Your task to perform on an android device: turn on location history Image 0: 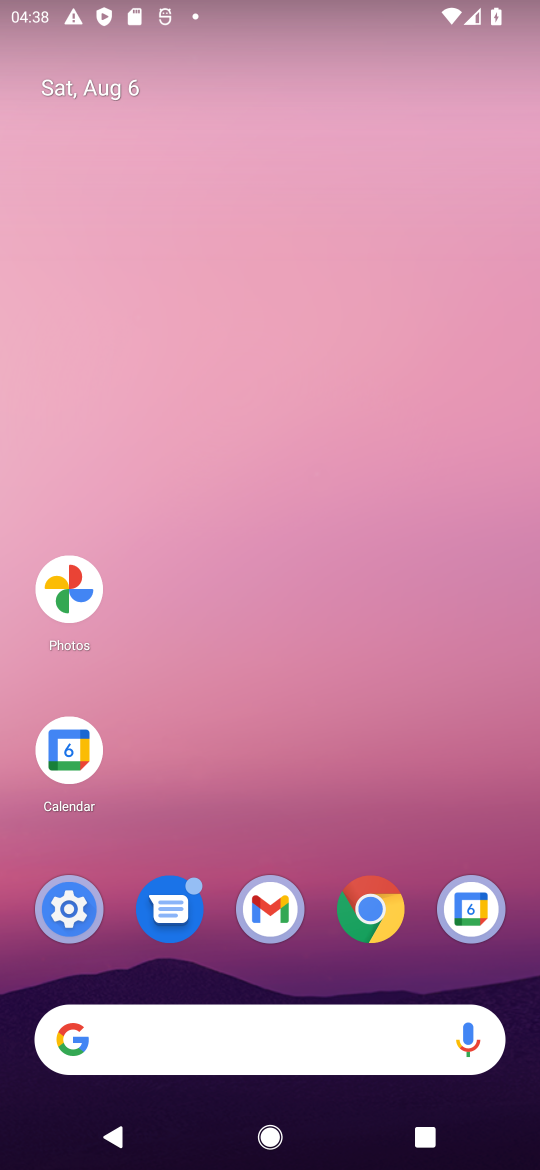
Step 0: click (57, 909)
Your task to perform on an android device: turn on location history Image 1: 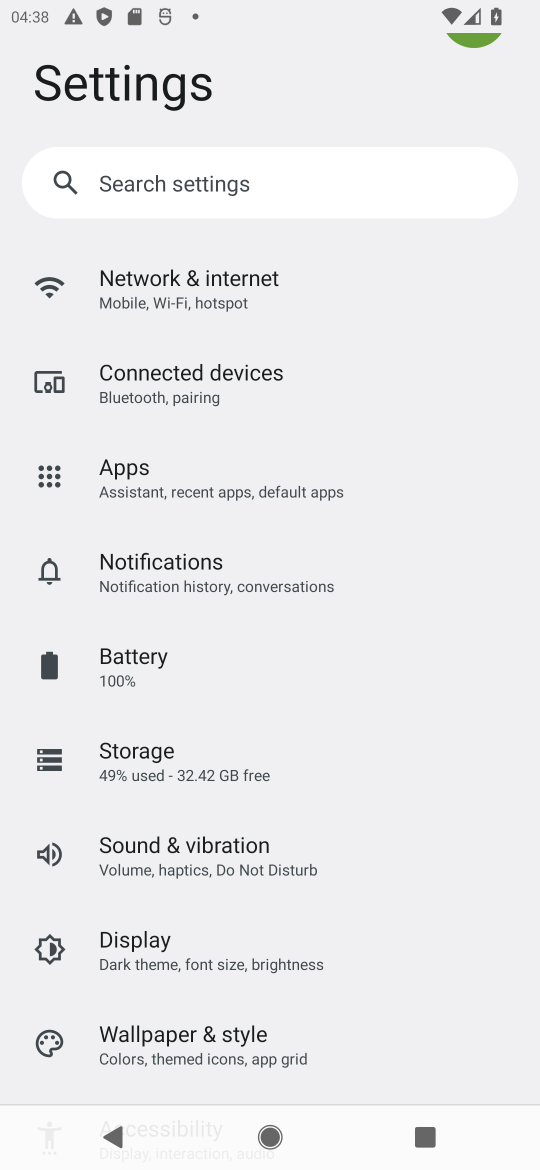
Step 1: drag from (313, 944) to (349, 276)
Your task to perform on an android device: turn on location history Image 2: 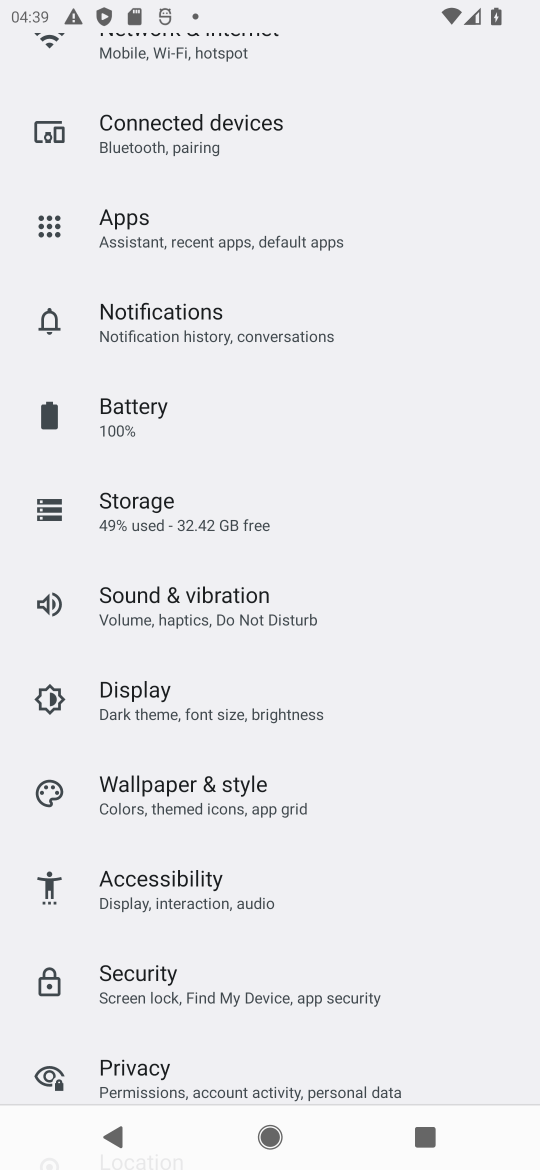
Step 2: drag from (374, 962) to (350, 305)
Your task to perform on an android device: turn on location history Image 3: 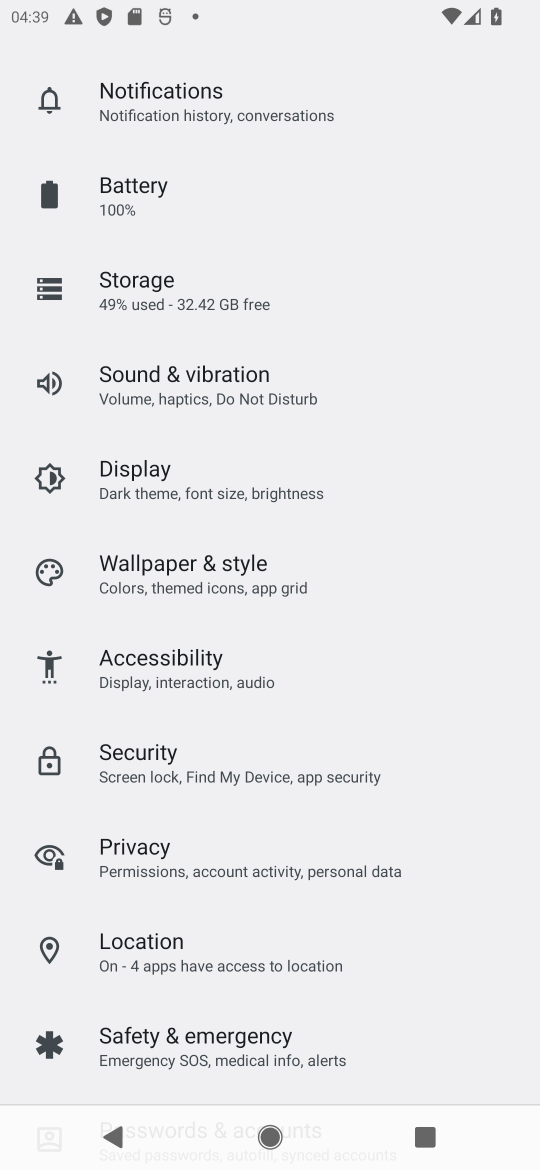
Step 3: click (147, 949)
Your task to perform on an android device: turn on location history Image 4: 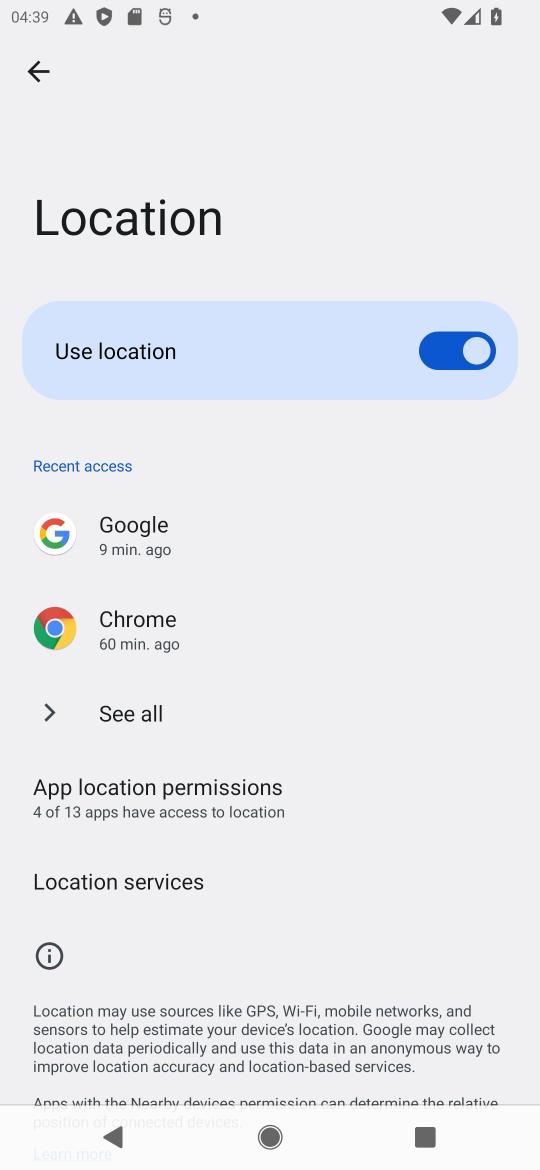
Step 4: click (121, 886)
Your task to perform on an android device: turn on location history Image 5: 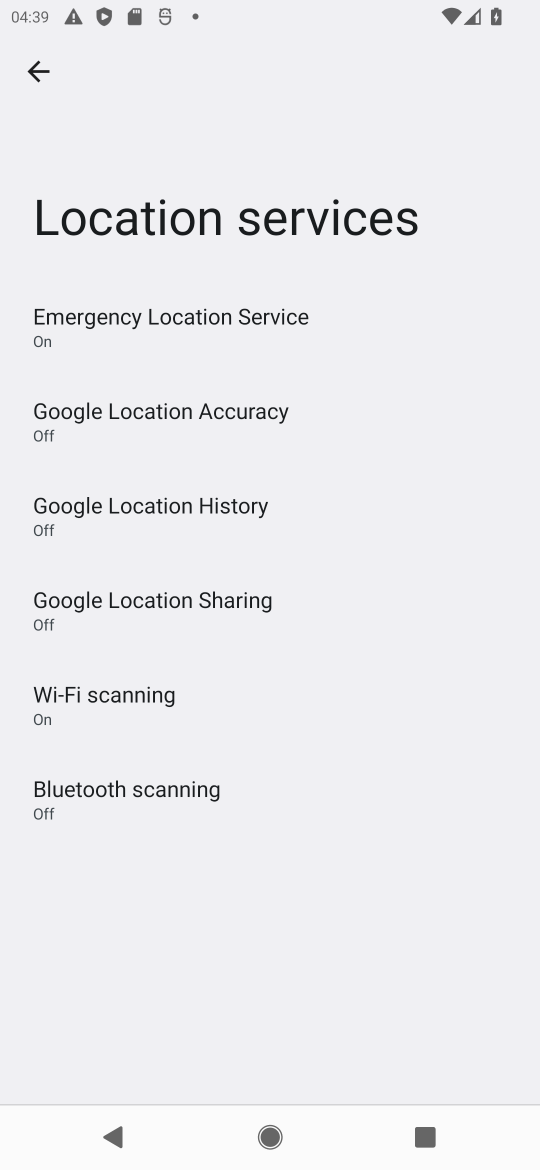
Step 5: click (166, 499)
Your task to perform on an android device: turn on location history Image 6: 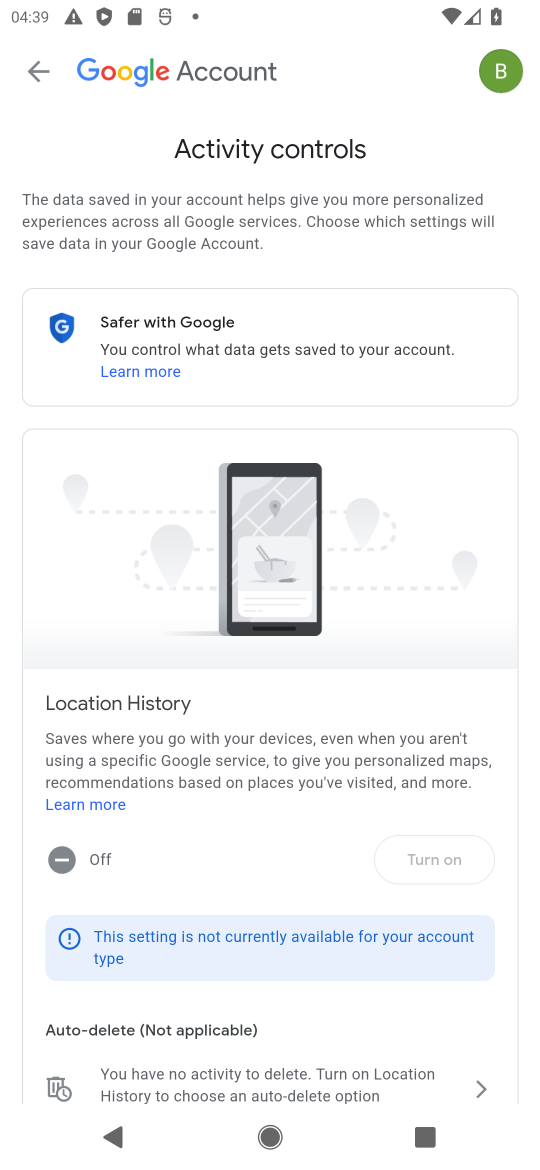
Step 6: click (420, 863)
Your task to perform on an android device: turn on location history Image 7: 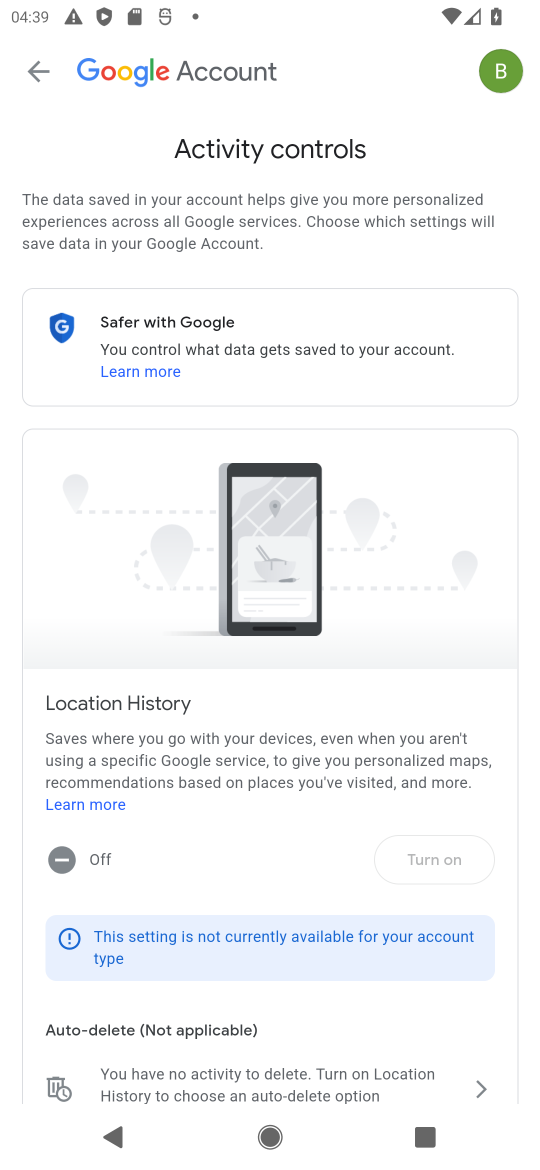
Step 7: click (420, 863)
Your task to perform on an android device: turn on location history Image 8: 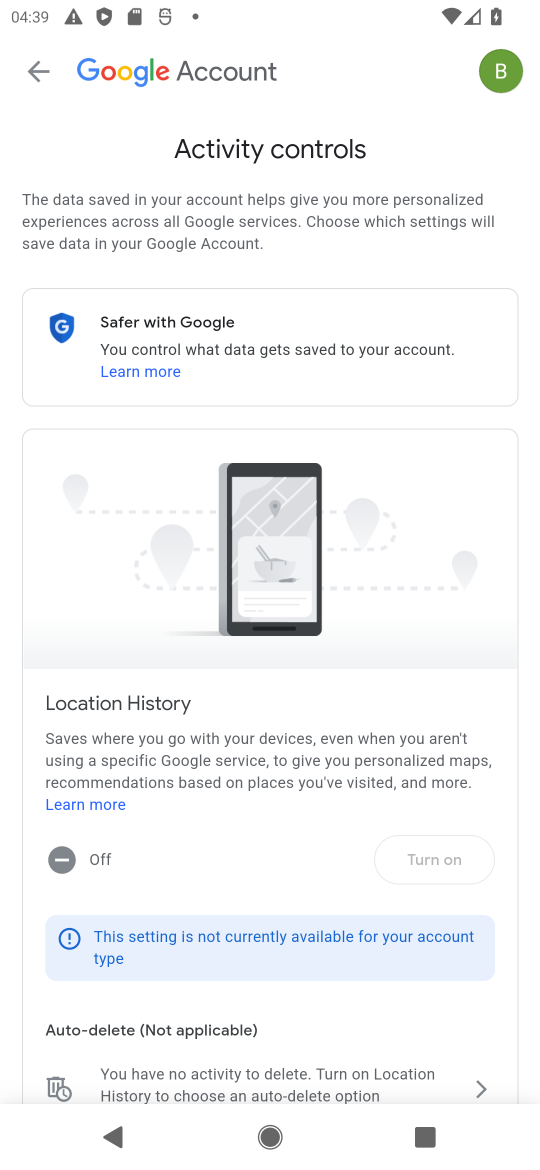
Step 8: click (420, 863)
Your task to perform on an android device: turn on location history Image 9: 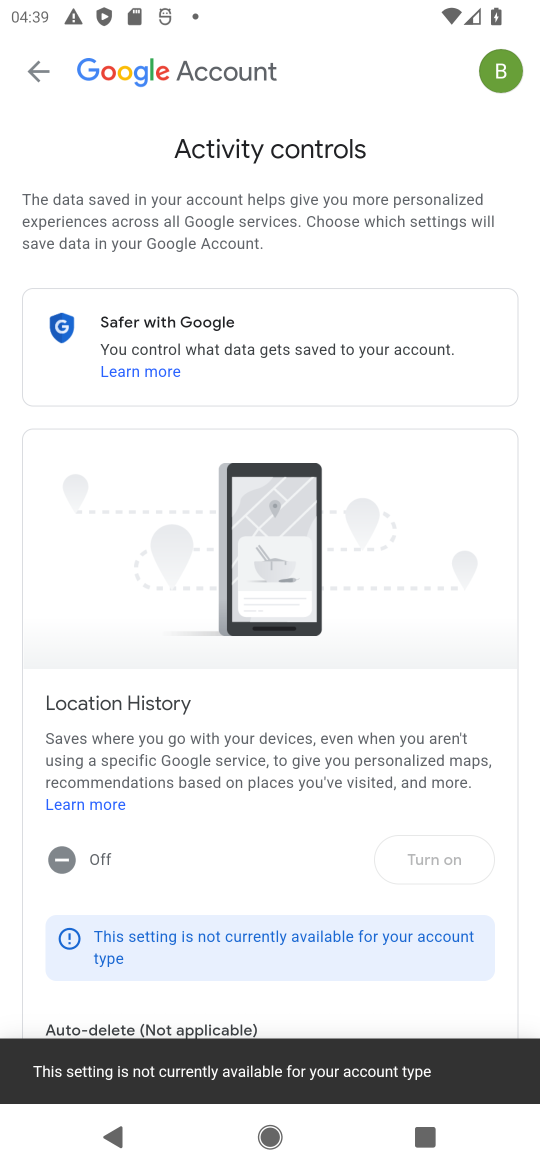
Step 9: click (420, 863)
Your task to perform on an android device: turn on location history Image 10: 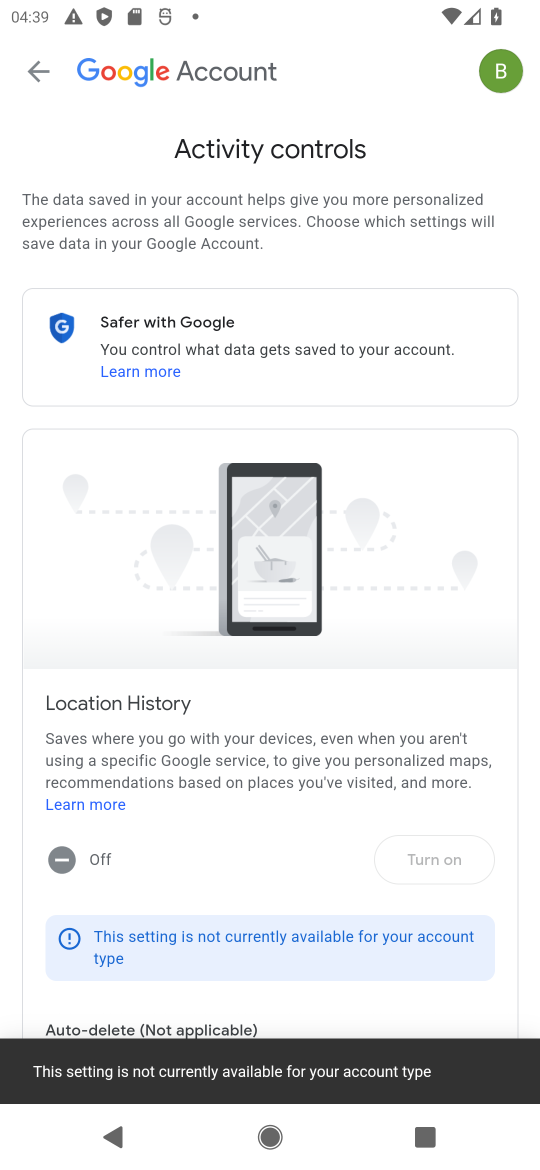
Step 10: click (420, 863)
Your task to perform on an android device: turn on location history Image 11: 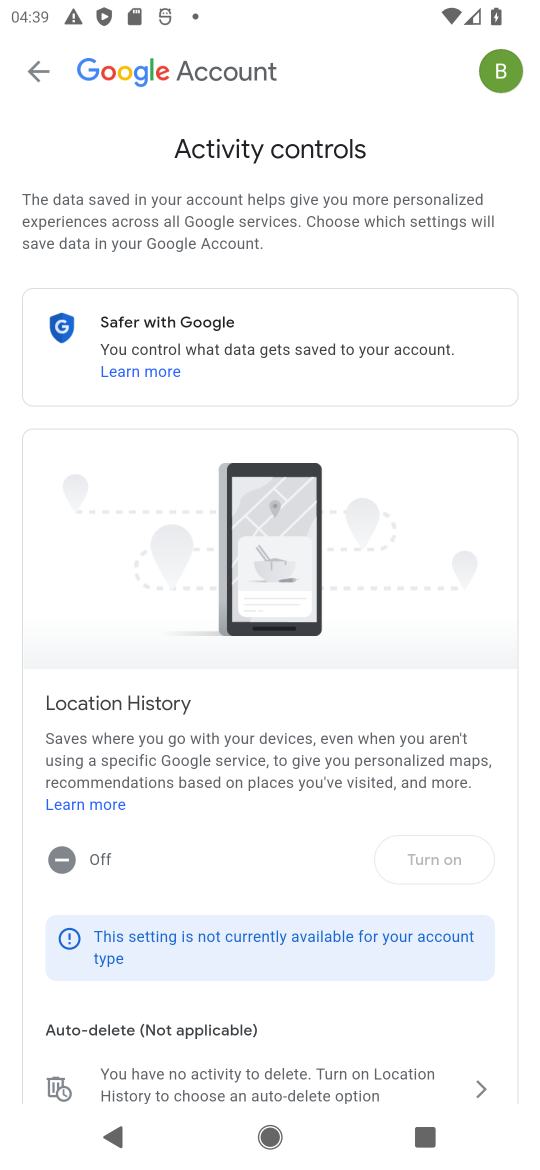
Step 11: click (420, 863)
Your task to perform on an android device: turn on location history Image 12: 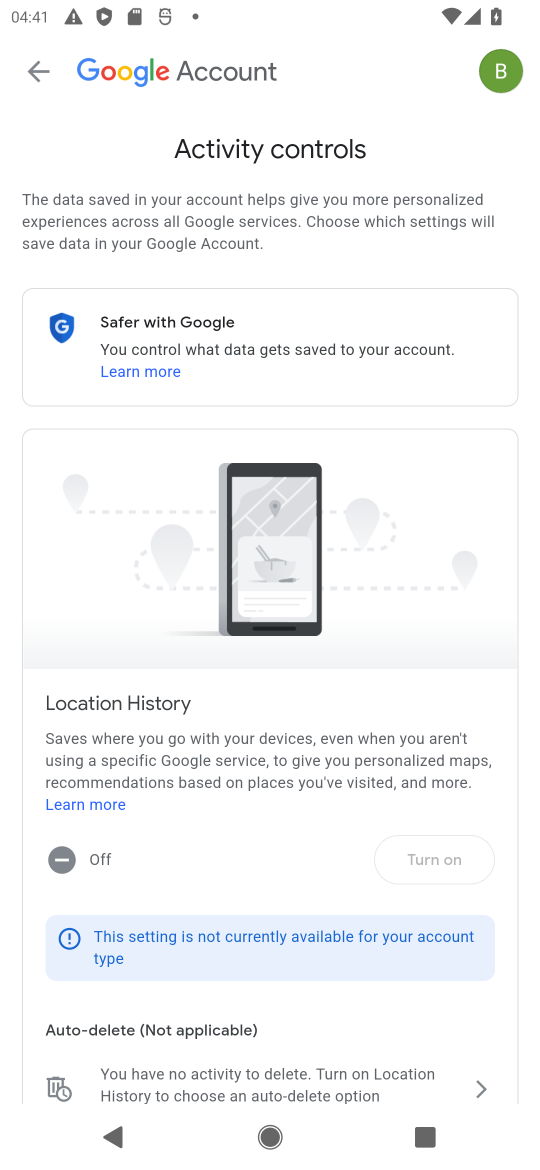
Step 12: task complete